Your task to perform on an android device: open a new tab in the chrome app Image 0: 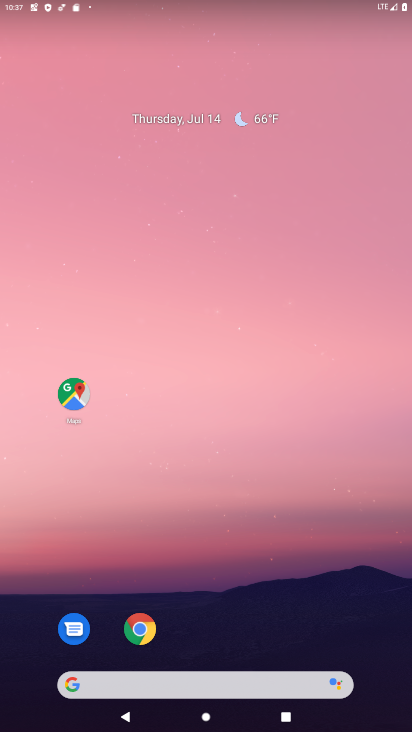
Step 0: press home button
Your task to perform on an android device: open a new tab in the chrome app Image 1: 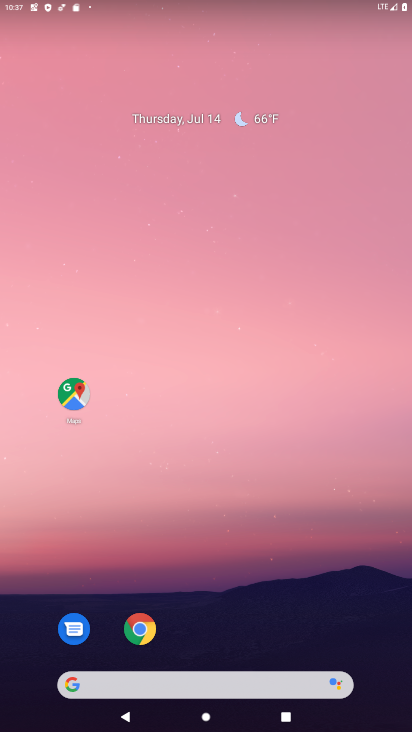
Step 1: click (141, 629)
Your task to perform on an android device: open a new tab in the chrome app Image 2: 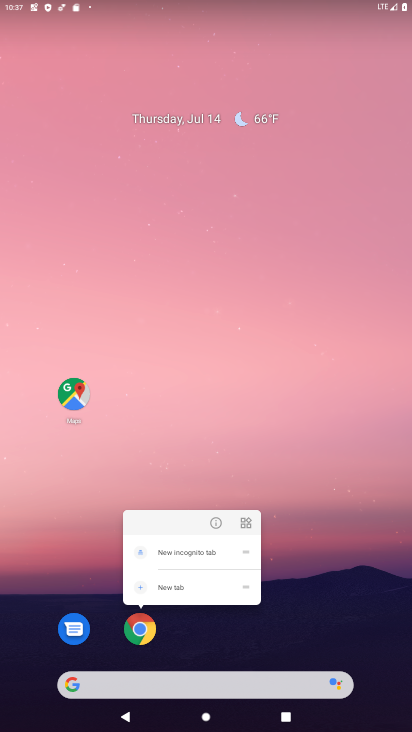
Step 2: click (149, 625)
Your task to perform on an android device: open a new tab in the chrome app Image 3: 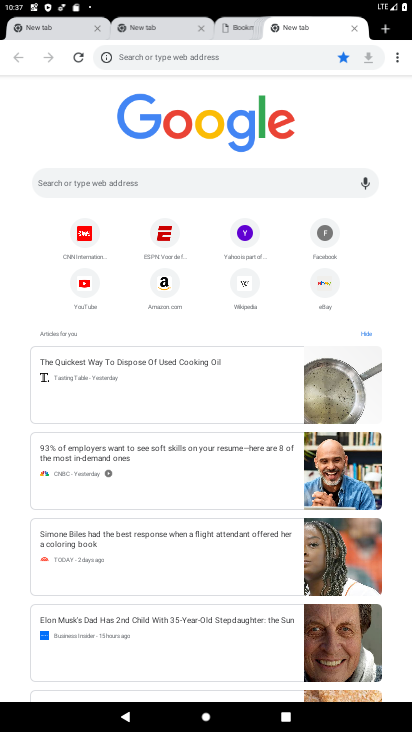
Step 3: click (387, 34)
Your task to perform on an android device: open a new tab in the chrome app Image 4: 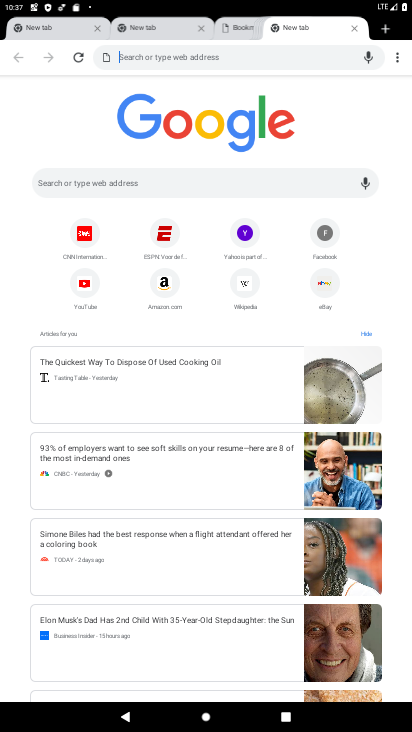
Step 4: task complete